Your task to perform on an android device: turn pop-ups on in chrome Image 0: 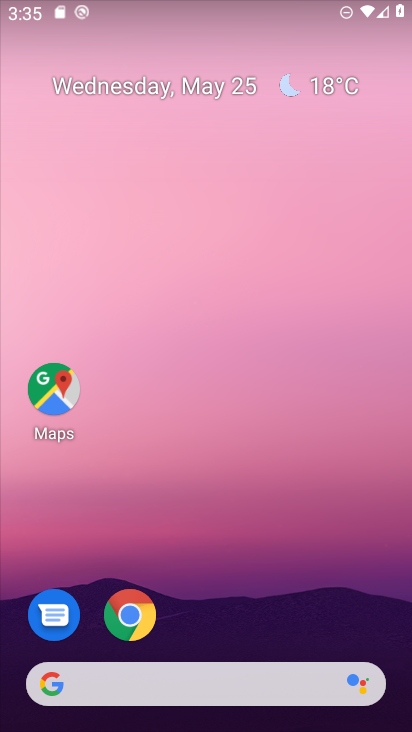
Step 0: click (131, 610)
Your task to perform on an android device: turn pop-ups on in chrome Image 1: 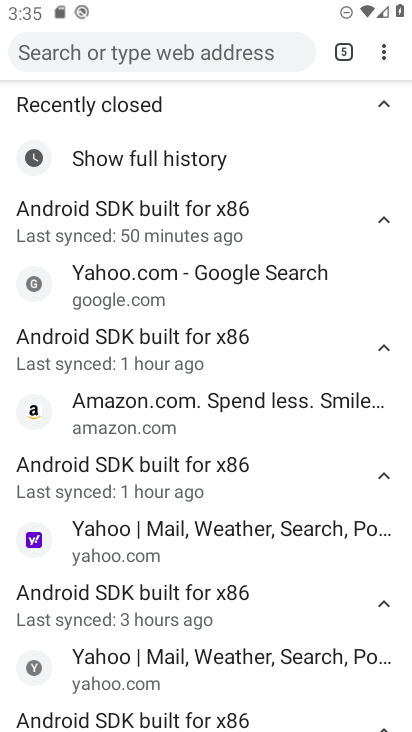
Step 1: click (380, 47)
Your task to perform on an android device: turn pop-ups on in chrome Image 2: 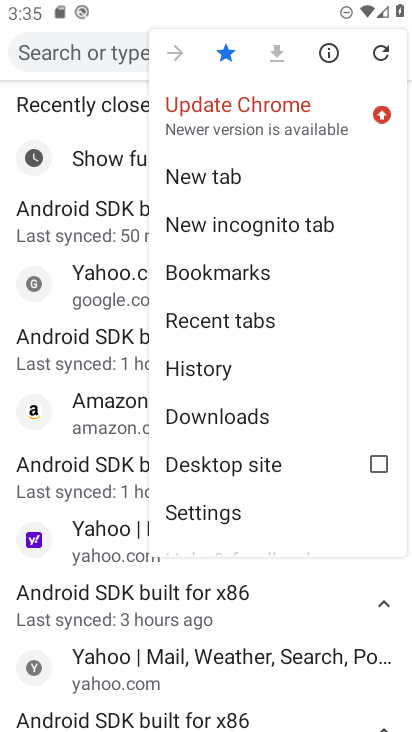
Step 2: click (232, 507)
Your task to perform on an android device: turn pop-ups on in chrome Image 3: 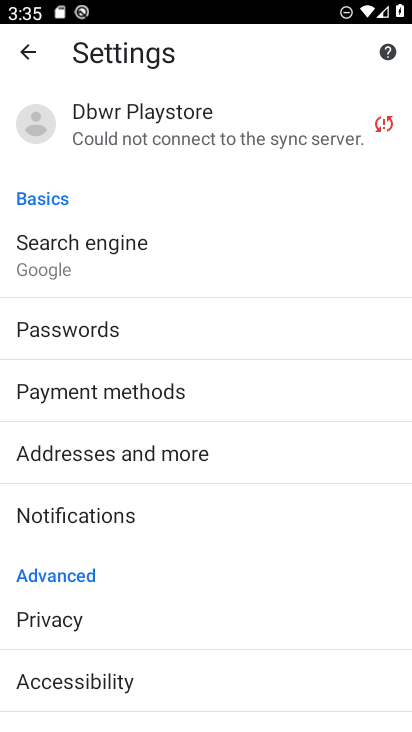
Step 3: drag from (217, 612) to (324, 311)
Your task to perform on an android device: turn pop-ups on in chrome Image 4: 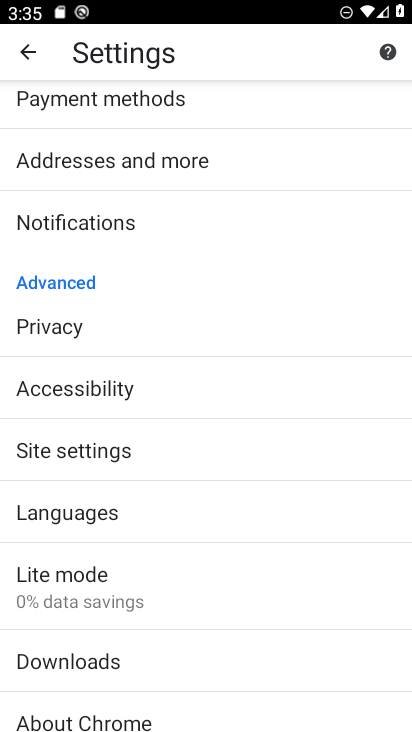
Step 4: click (234, 445)
Your task to perform on an android device: turn pop-ups on in chrome Image 5: 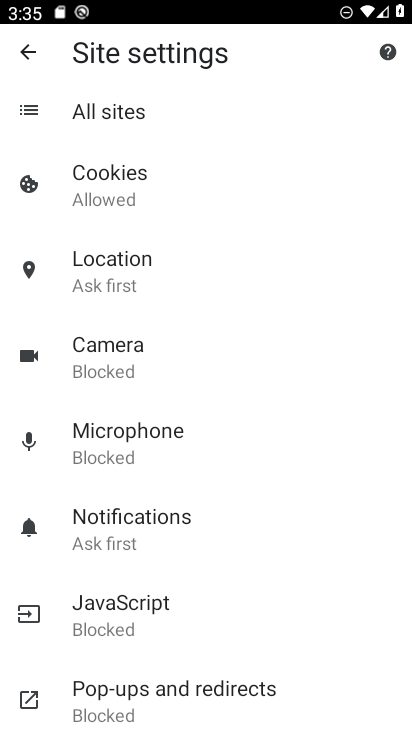
Step 5: drag from (246, 528) to (271, 310)
Your task to perform on an android device: turn pop-ups on in chrome Image 6: 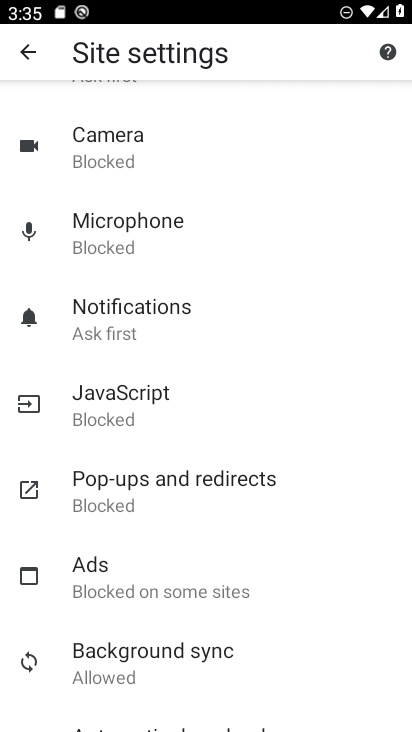
Step 6: click (224, 494)
Your task to perform on an android device: turn pop-ups on in chrome Image 7: 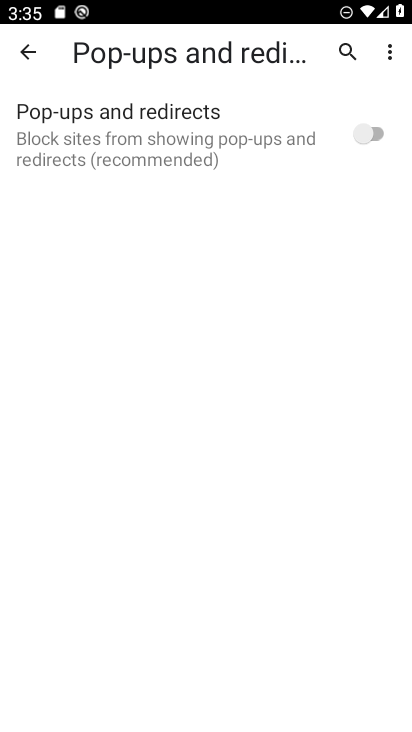
Step 7: click (367, 130)
Your task to perform on an android device: turn pop-ups on in chrome Image 8: 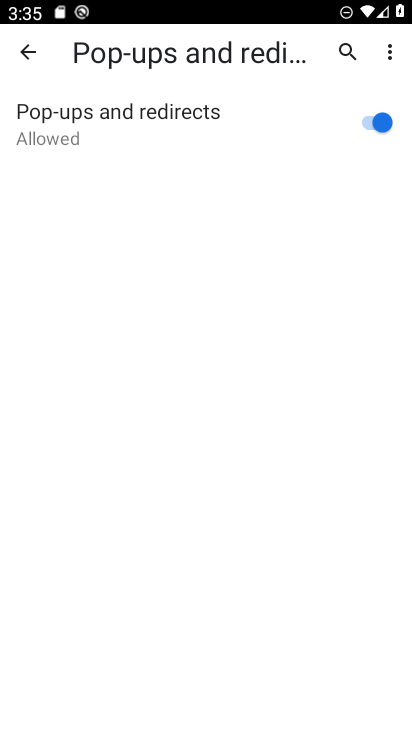
Step 8: task complete